Your task to perform on an android device: visit the assistant section in the google photos Image 0: 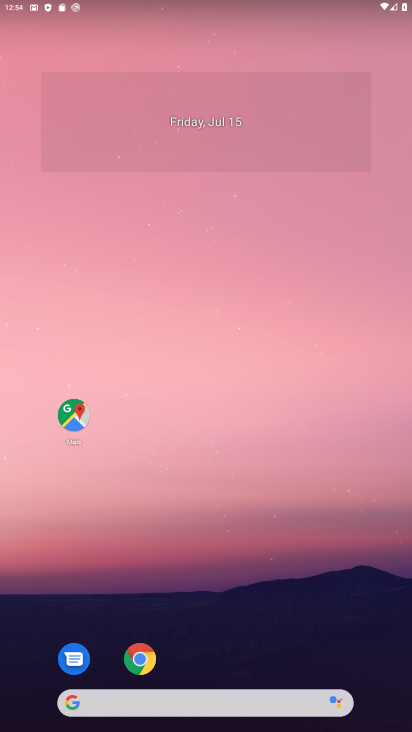
Step 0: drag from (193, 681) to (282, 13)
Your task to perform on an android device: visit the assistant section in the google photos Image 1: 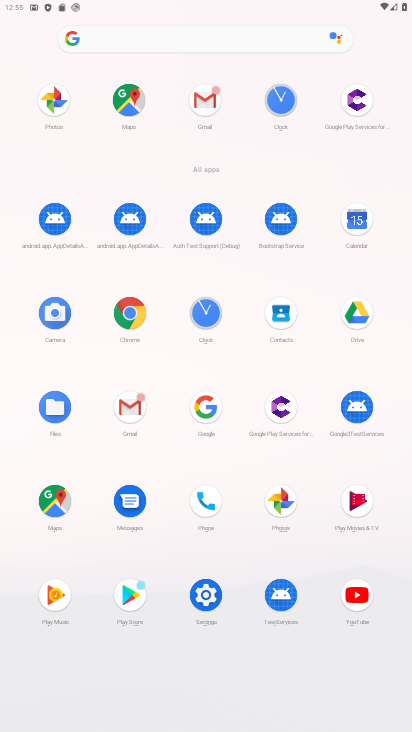
Step 1: click (61, 96)
Your task to perform on an android device: visit the assistant section in the google photos Image 2: 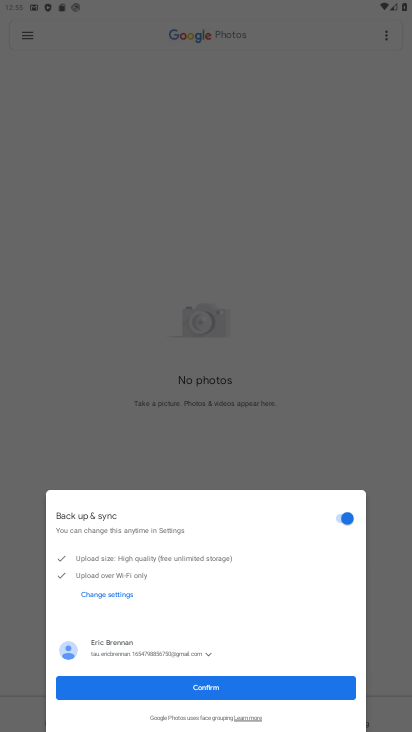
Step 2: click (140, 692)
Your task to perform on an android device: visit the assistant section in the google photos Image 3: 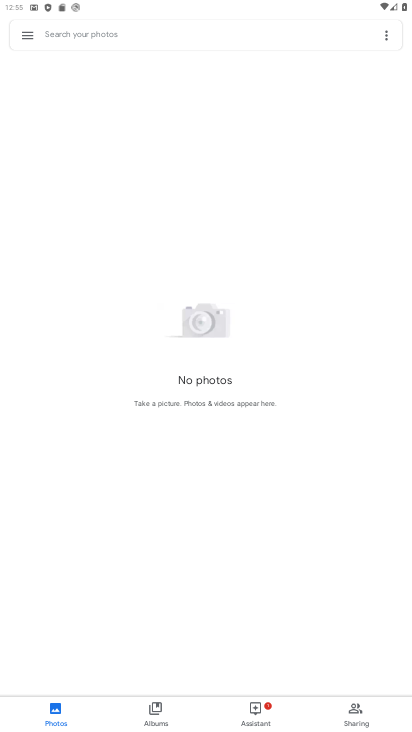
Step 3: click (31, 28)
Your task to perform on an android device: visit the assistant section in the google photos Image 4: 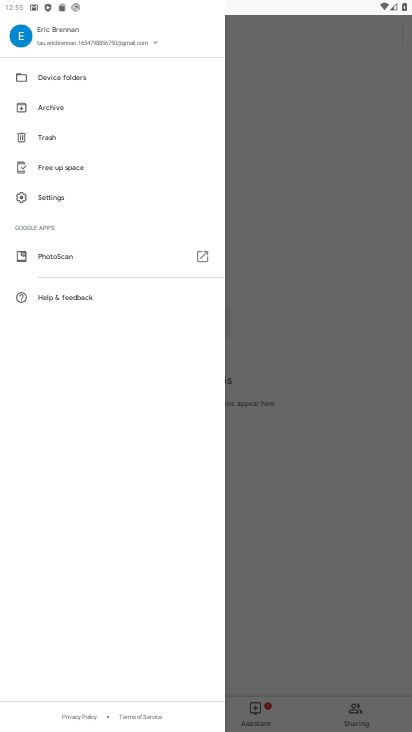
Step 4: click (344, 492)
Your task to perform on an android device: visit the assistant section in the google photos Image 5: 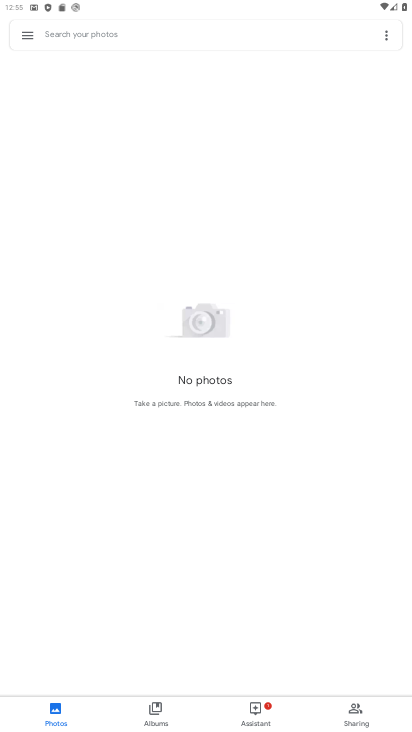
Step 5: click (260, 714)
Your task to perform on an android device: visit the assistant section in the google photos Image 6: 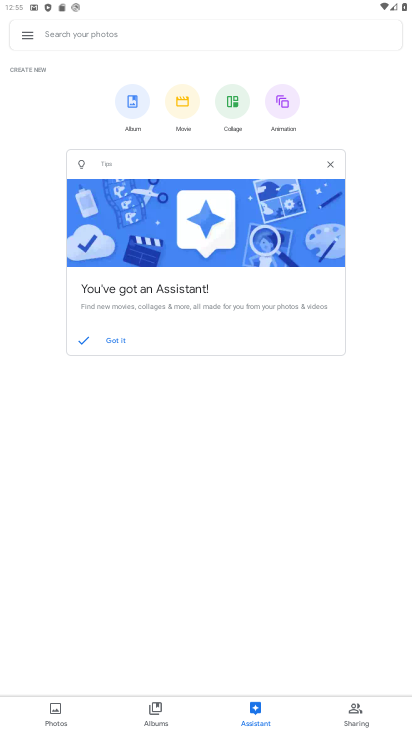
Step 6: task complete